Your task to perform on an android device: open a bookmark in the chrome app Image 0: 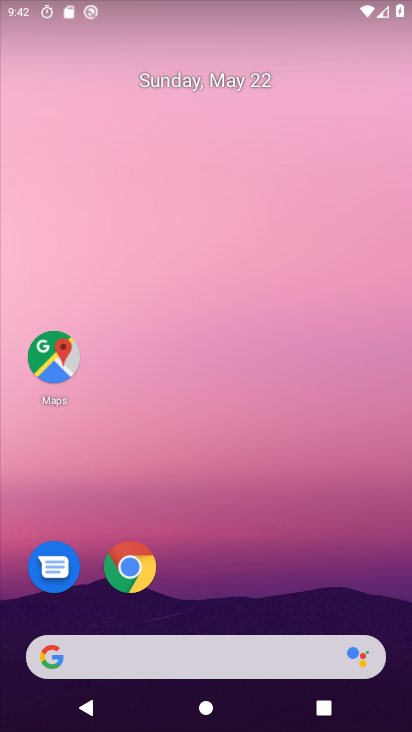
Step 0: press home button
Your task to perform on an android device: open a bookmark in the chrome app Image 1: 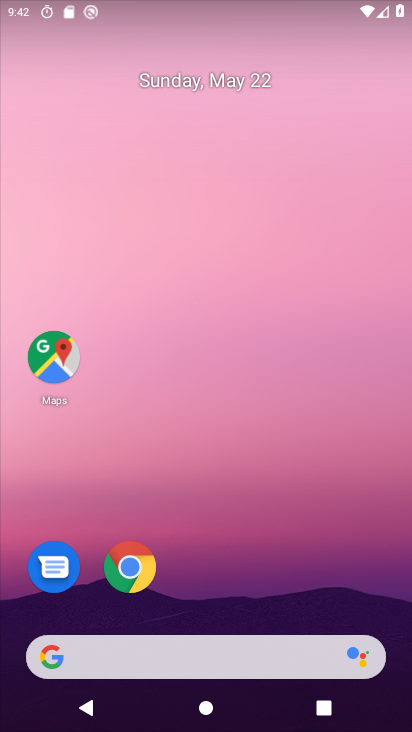
Step 1: click (135, 565)
Your task to perform on an android device: open a bookmark in the chrome app Image 2: 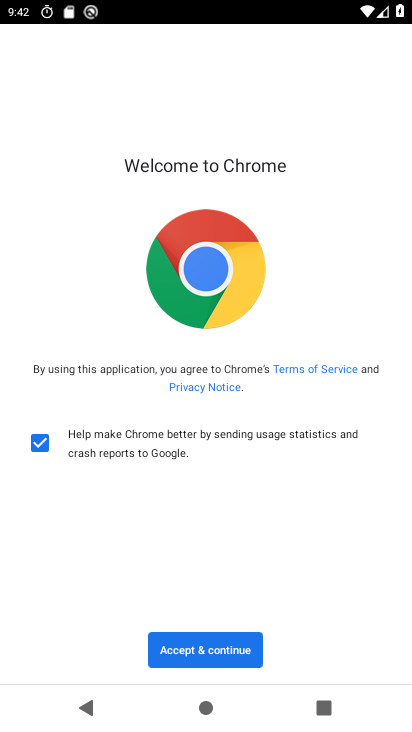
Step 2: click (201, 640)
Your task to perform on an android device: open a bookmark in the chrome app Image 3: 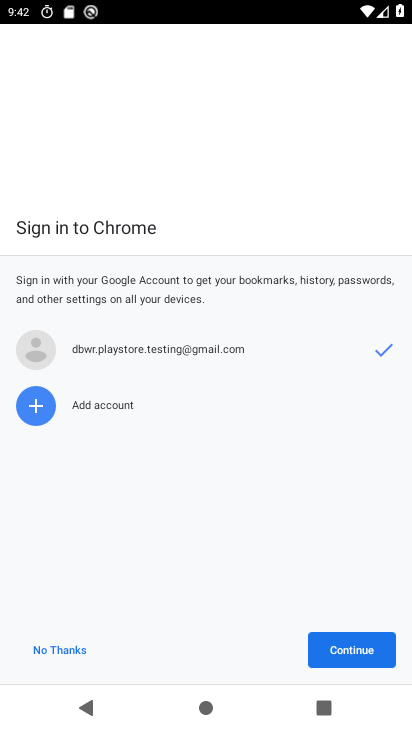
Step 3: click (349, 650)
Your task to perform on an android device: open a bookmark in the chrome app Image 4: 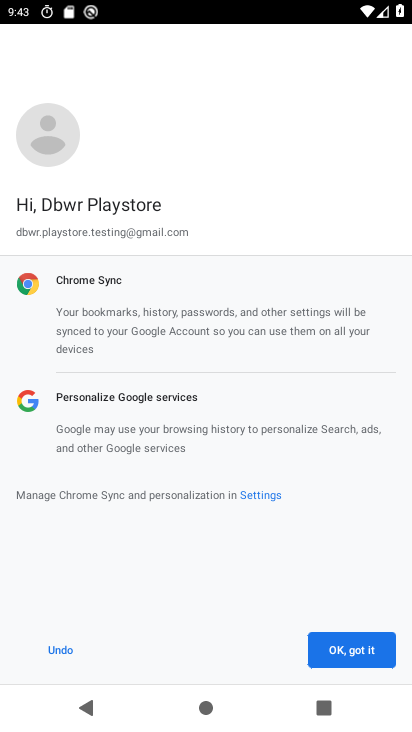
Step 4: click (330, 648)
Your task to perform on an android device: open a bookmark in the chrome app Image 5: 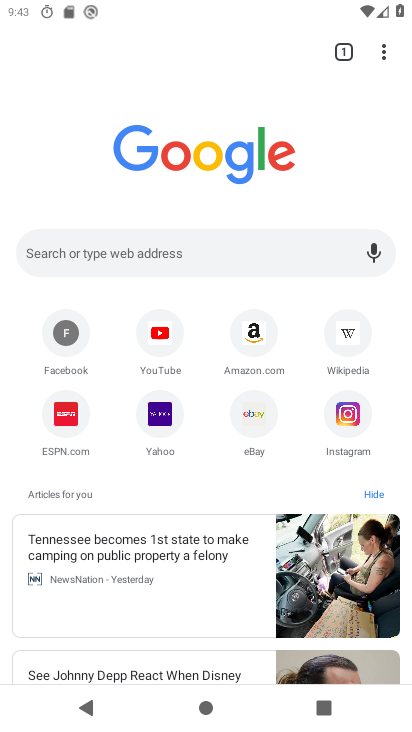
Step 5: click (380, 49)
Your task to perform on an android device: open a bookmark in the chrome app Image 6: 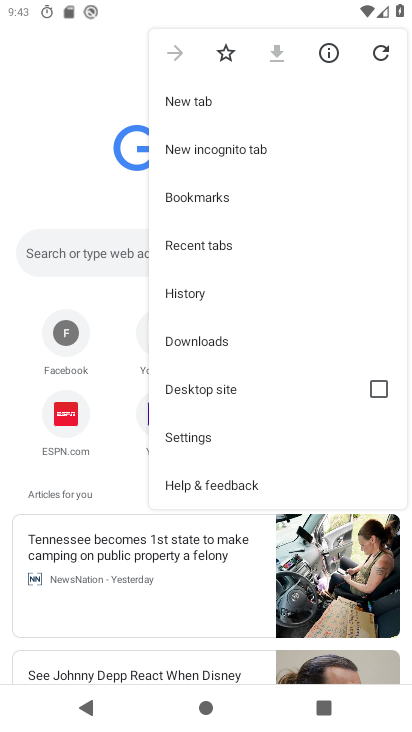
Step 6: click (237, 191)
Your task to perform on an android device: open a bookmark in the chrome app Image 7: 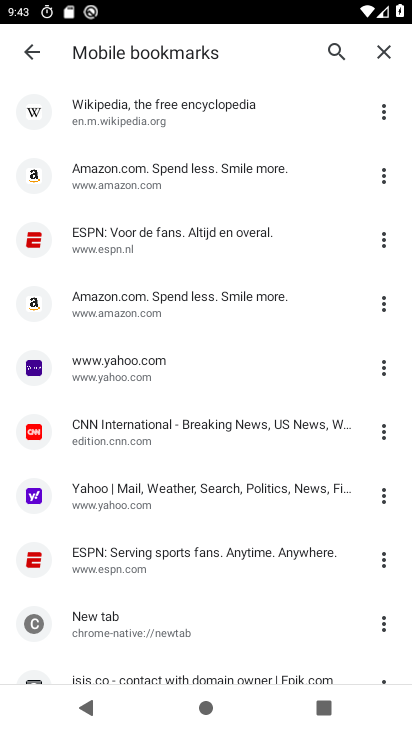
Step 7: click (140, 238)
Your task to perform on an android device: open a bookmark in the chrome app Image 8: 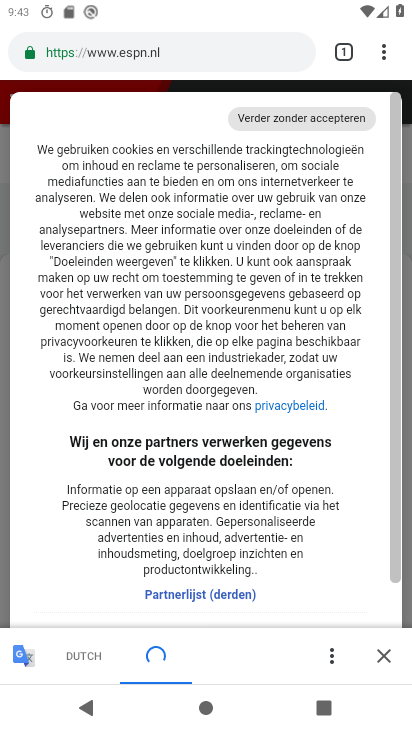
Step 8: drag from (194, 543) to (185, 148)
Your task to perform on an android device: open a bookmark in the chrome app Image 9: 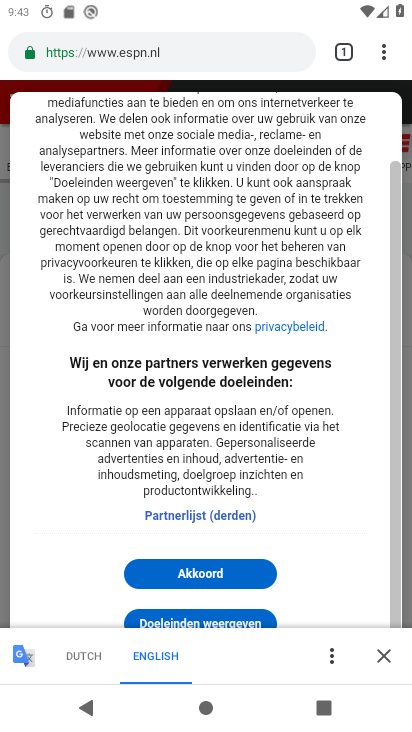
Step 9: click (203, 570)
Your task to perform on an android device: open a bookmark in the chrome app Image 10: 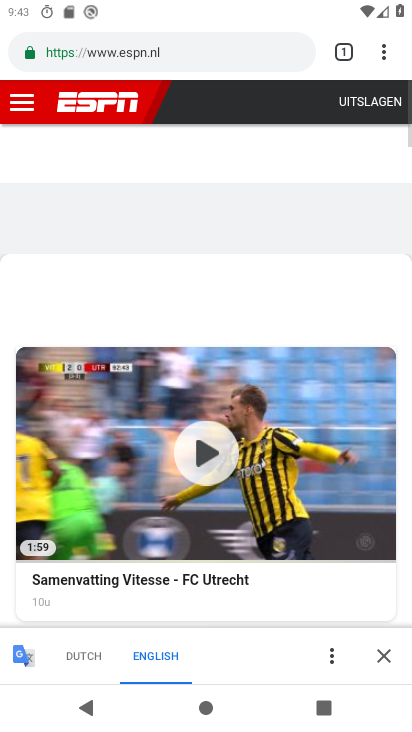
Step 10: task complete